Your task to perform on an android device: Show me productivity apps on the Play Store Image 0: 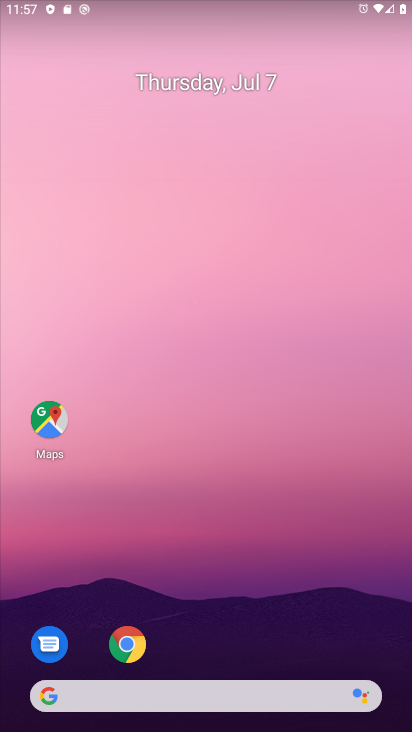
Step 0: drag from (208, 637) to (287, 136)
Your task to perform on an android device: Show me productivity apps on the Play Store Image 1: 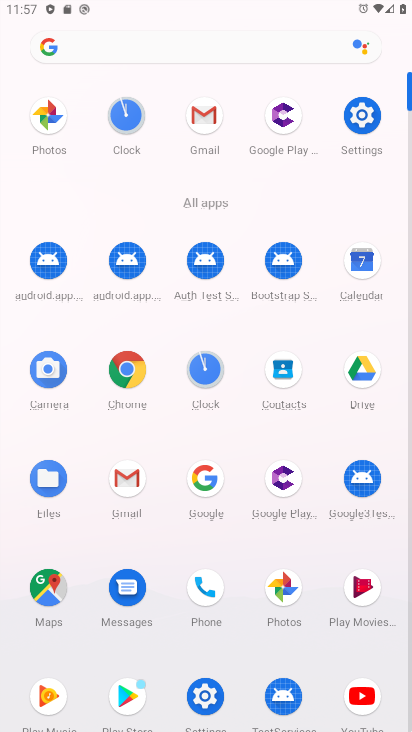
Step 1: click (132, 692)
Your task to perform on an android device: Show me productivity apps on the Play Store Image 2: 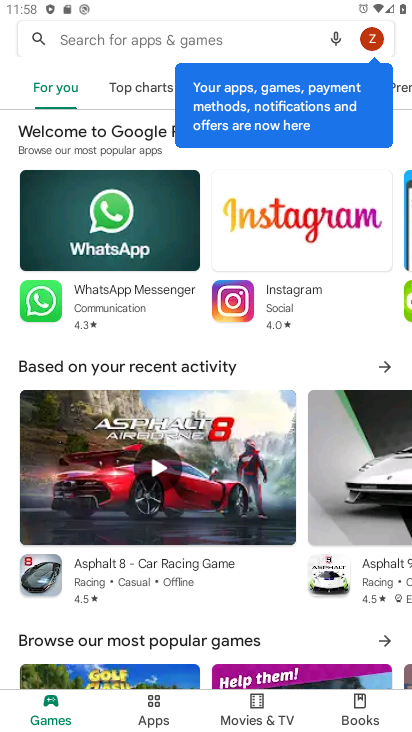
Step 2: click (159, 720)
Your task to perform on an android device: Show me productivity apps on the Play Store Image 3: 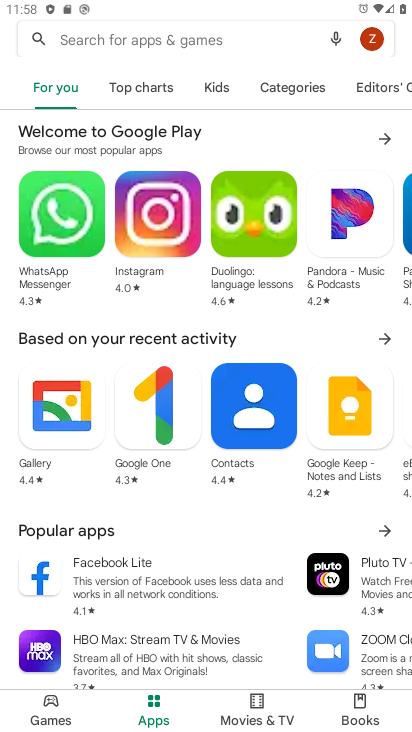
Step 3: click (294, 83)
Your task to perform on an android device: Show me productivity apps on the Play Store Image 4: 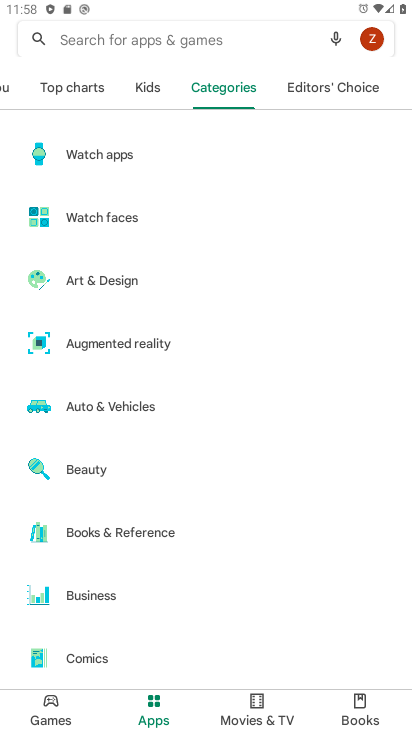
Step 4: drag from (132, 562) to (153, 299)
Your task to perform on an android device: Show me productivity apps on the Play Store Image 5: 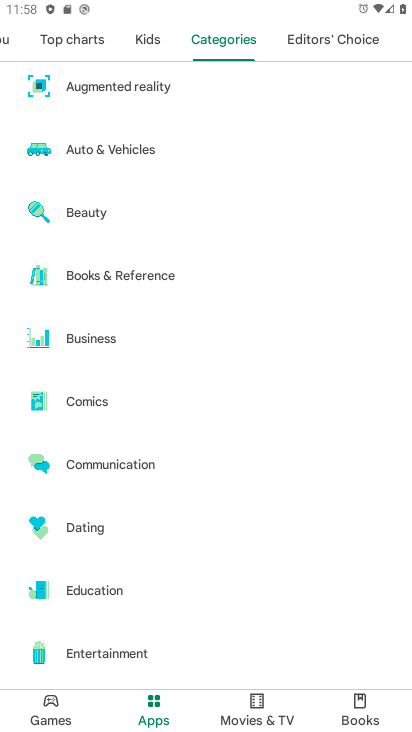
Step 5: drag from (96, 605) to (138, 299)
Your task to perform on an android device: Show me productivity apps on the Play Store Image 6: 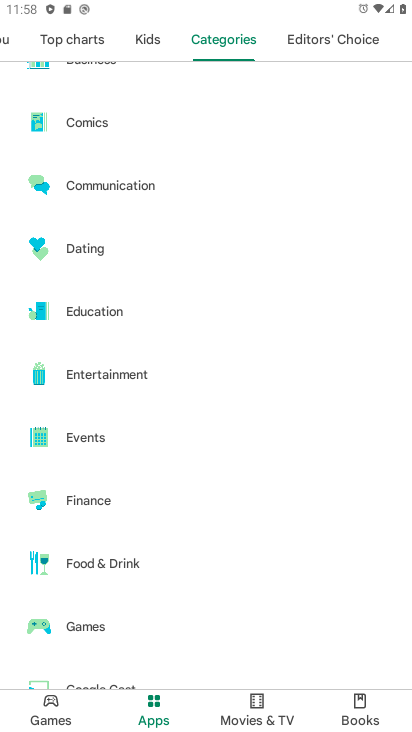
Step 6: drag from (69, 544) to (122, 214)
Your task to perform on an android device: Show me productivity apps on the Play Store Image 7: 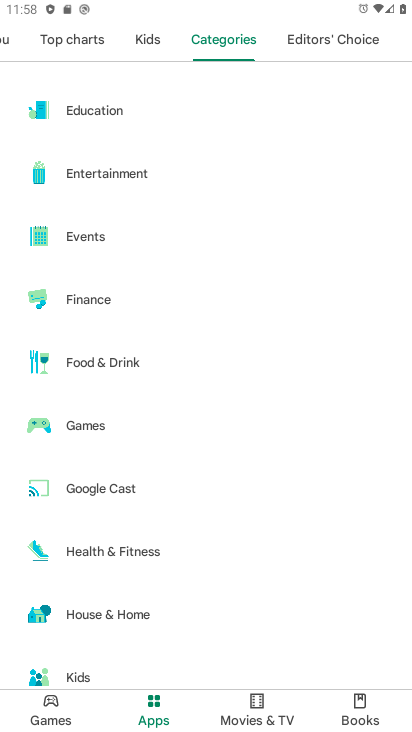
Step 7: drag from (123, 570) to (161, 0)
Your task to perform on an android device: Show me productivity apps on the Play Store Image 8: 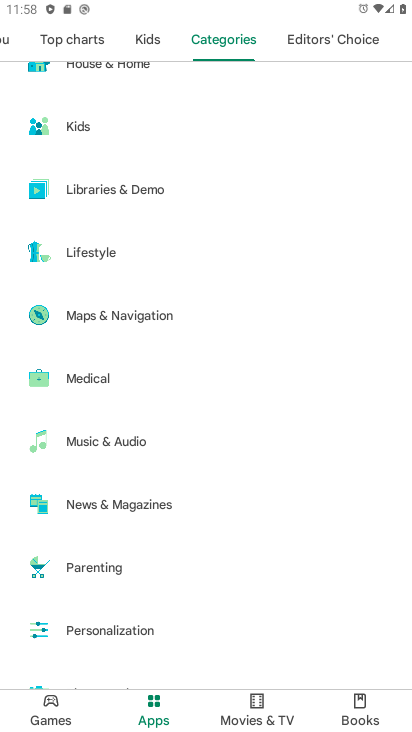
Step 8: drag from (140, 507) to (171, 314)
Your task to perform on an android device: Show me productivity apps on the Play Store Image 9: 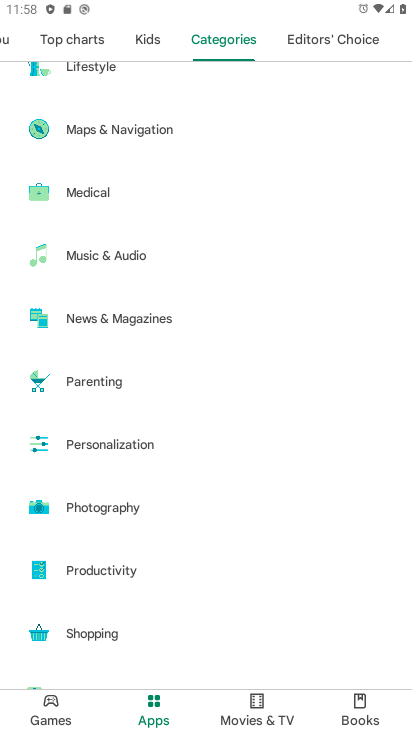
Step 9: click (108, 574)
Your task to perform on an android device: Show me productivity apps on the Play Store Image 10: 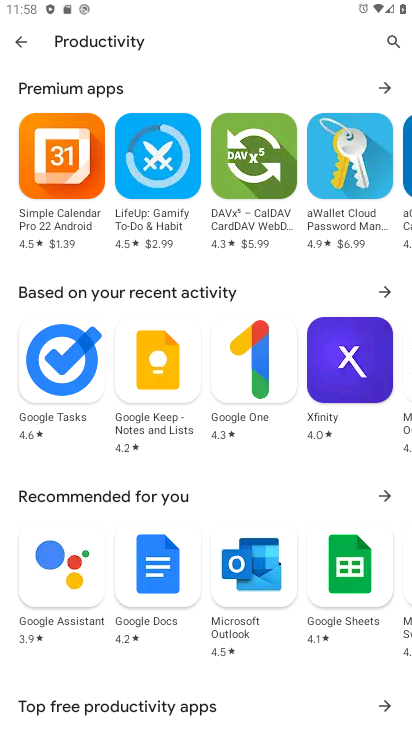
Step 10: task complete